Your task to perform on an android device: turn pop-ups on in chrome Image 0: 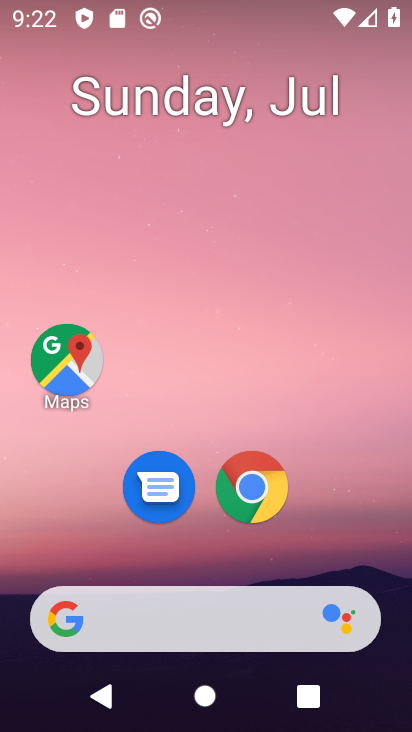
Step 0: click (265, 487)
Your task to perform on an android device: turn pop-ups on in chrome Image 1: 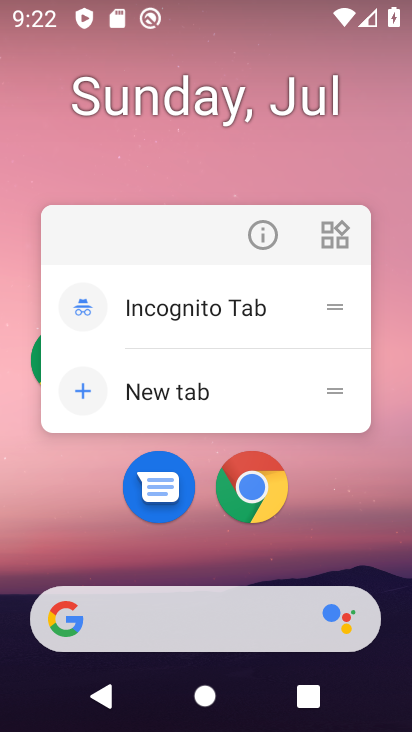
Step 1: click (250, 483)
Your task to perform on an android device: turn pop-ups on in chrome Image 2: 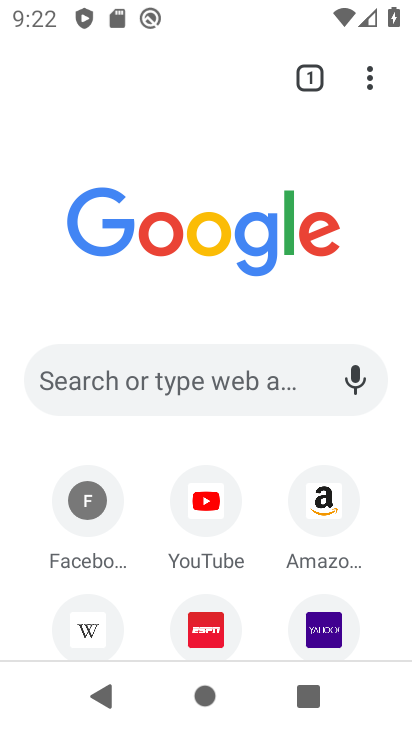
Step 2: drag from (370, 69) to (141, 550)
Your task to perform on an android device: turn pop-ups on in chrome Image 3: 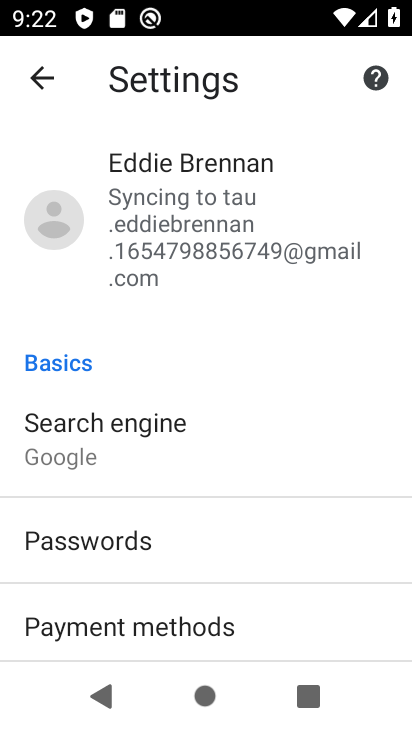
Step 3: drag from (252, 606) to (321, 166)
Your task to perform on an android device: turn pop-ups on in chrome Image 4: 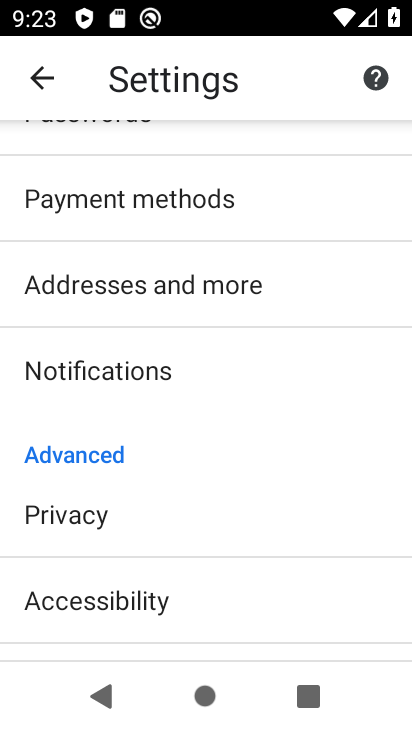
Step 4: drag from (154, 638) to (192, 137)
Your task to perform on an android device: turn pop-ups on in chrome Image 5: 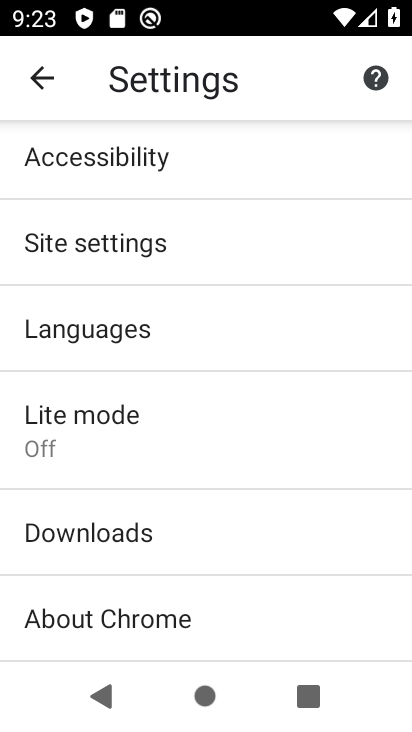
Step 5: click (100, 245)
Your task to perform on an android device: turn pop-ups on in chrome Image 6: 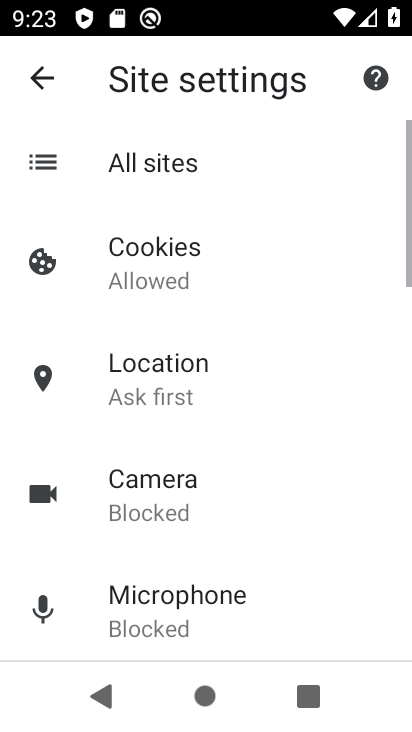
Step 6: drag from (129, 602) to (270, 66)
Your task to perform on an android device: turn pop-ups on in chrome Image 7: 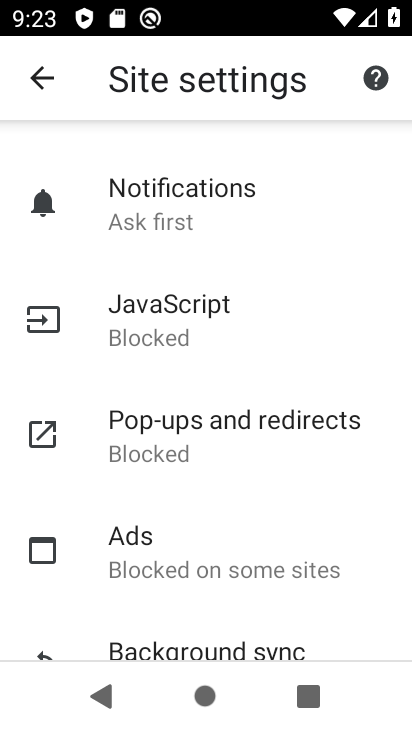
Step 7: click (221, 438)
Your task to perform on an android device: turn pop-ups on in chrome Image 8: 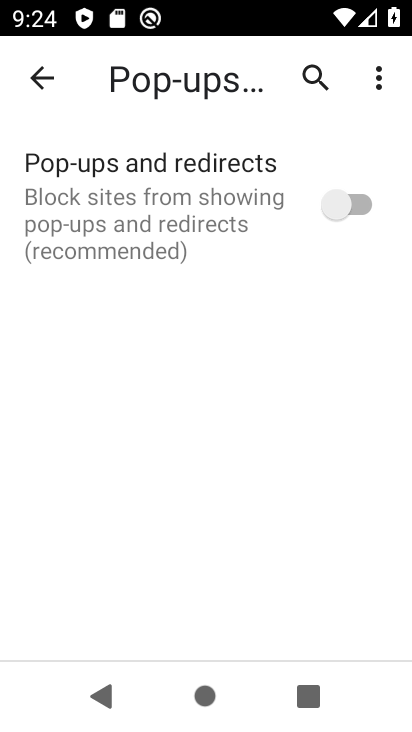
Step 8: click (336, 201)
Your task to perform on an android device: turn pop-ups on in chrome Image 9: 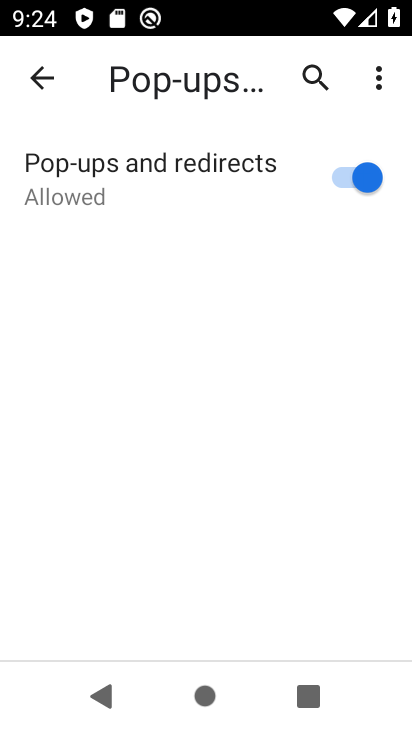
Step 9: task complete